Your task to perform on an android device: When is my next meeting? Image 0: 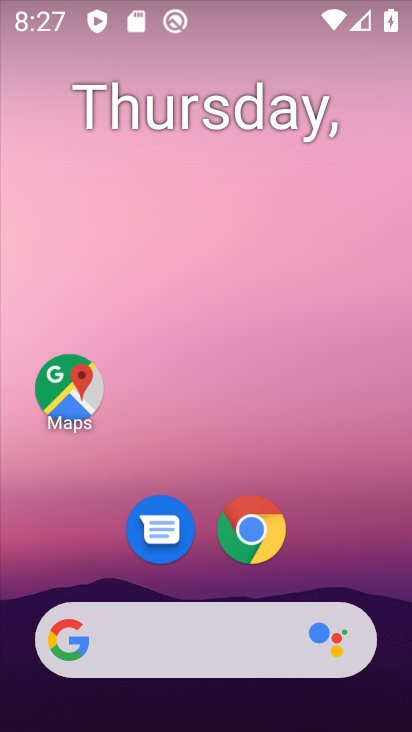
Step 0: drag from (344, 552) to (261, 22)
Your task to perform on an android device: When is my next meeting? Image 1: 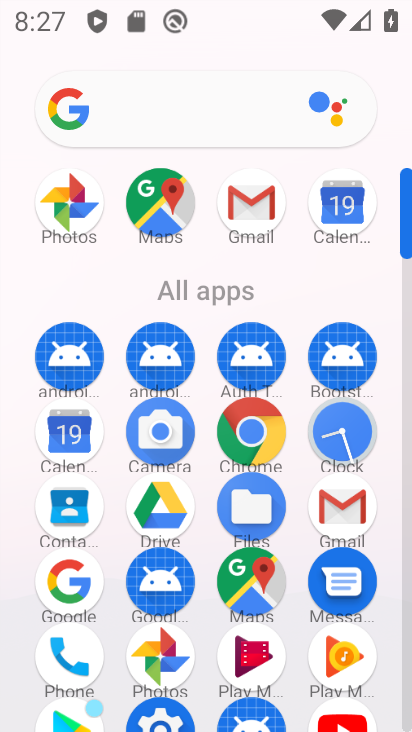
Step 1: click (340, 204)
Your task to perform on an android device: When is my next meeting? Image 2: 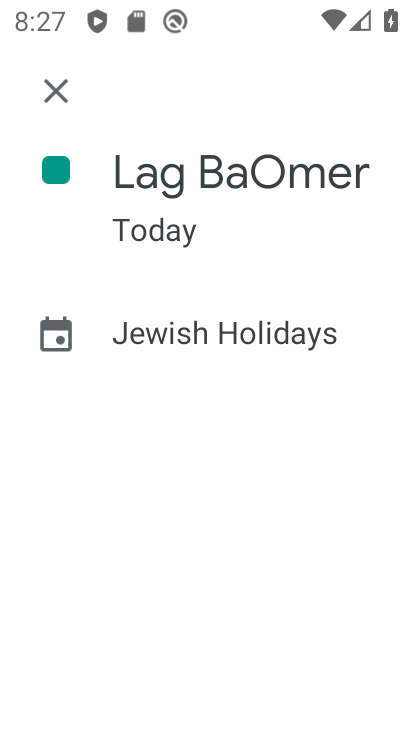
Step 2: click (52, 92)
Your task to perform on an android device: When is my next meeting? Image 3: 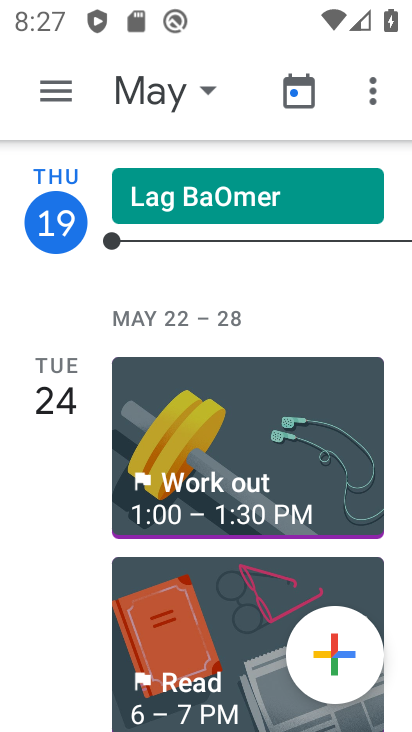
Step 3: click (307, 91)
Your task to perform on an android device: When is my next meeting? Image 4: 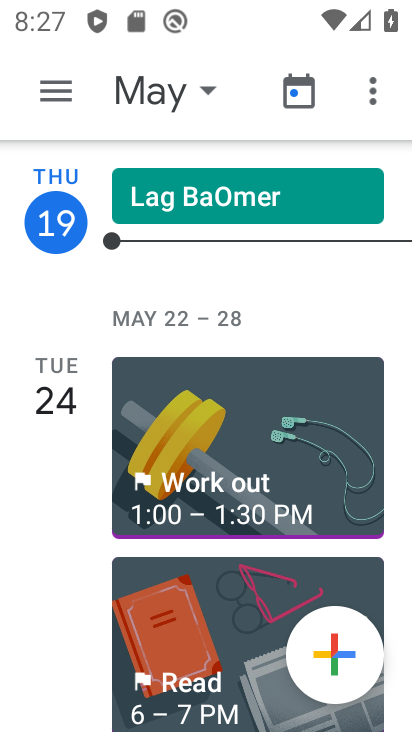
Step 4: click (204, 86)
Your task to perform on an android device: When is my next meeting? Image 5: 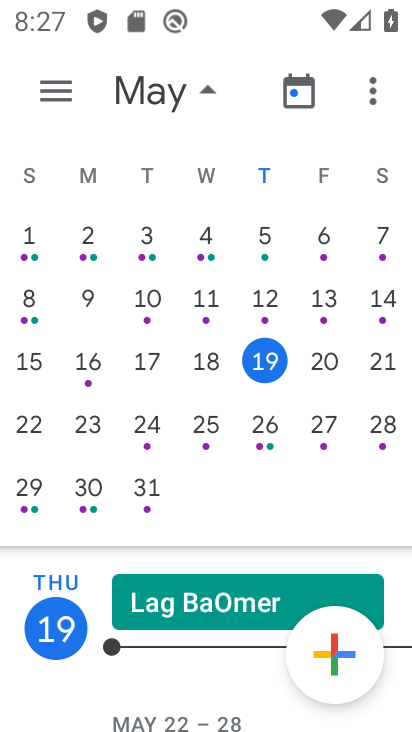
Step 5: click (154, 424)
Your task to perform on an android device: When is my next meeting? Image 6: 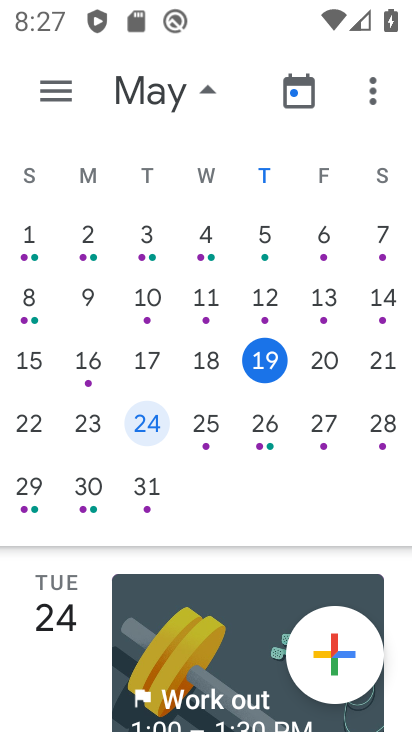
Step 6: click (49, 87)
Your task to perform on an android device: When is my next meeting? Image 7: 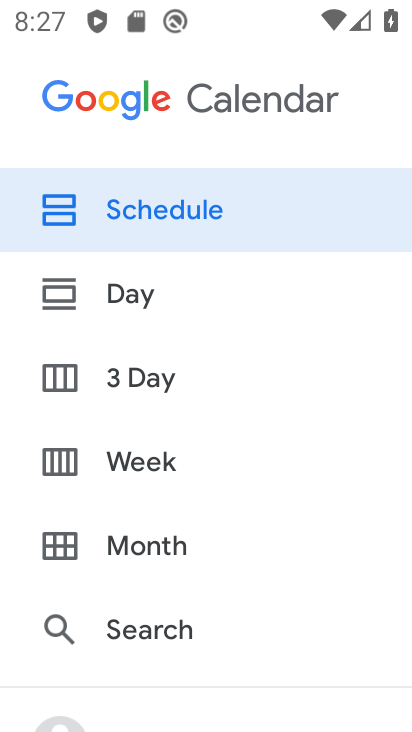
Step 7: click (128, 227)
Your task to perform on an android device: When is my next meeting? Image 8: 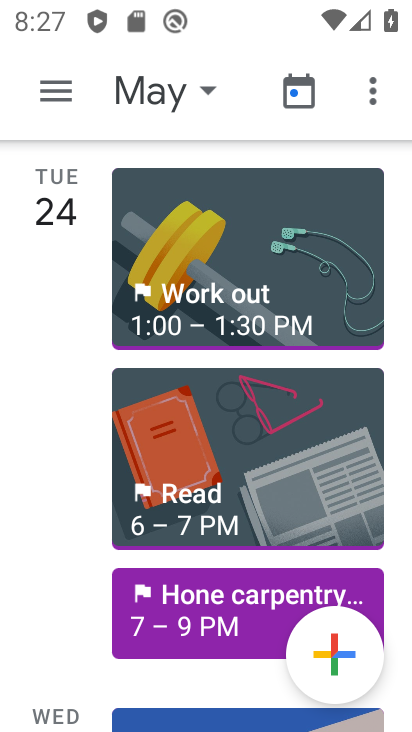
Step 8: click (180, 602)
Your task to perform on an android device: When is my next meeting? Image 9: 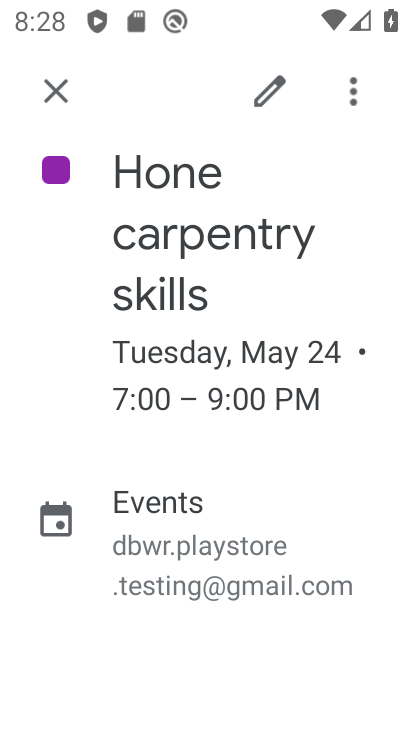
Step 9: task complete